Your task to perform on an android device: Search for jbl charge 4 on ebay.com, select the first entry, add it to the cart, then select checkout. Image 0: 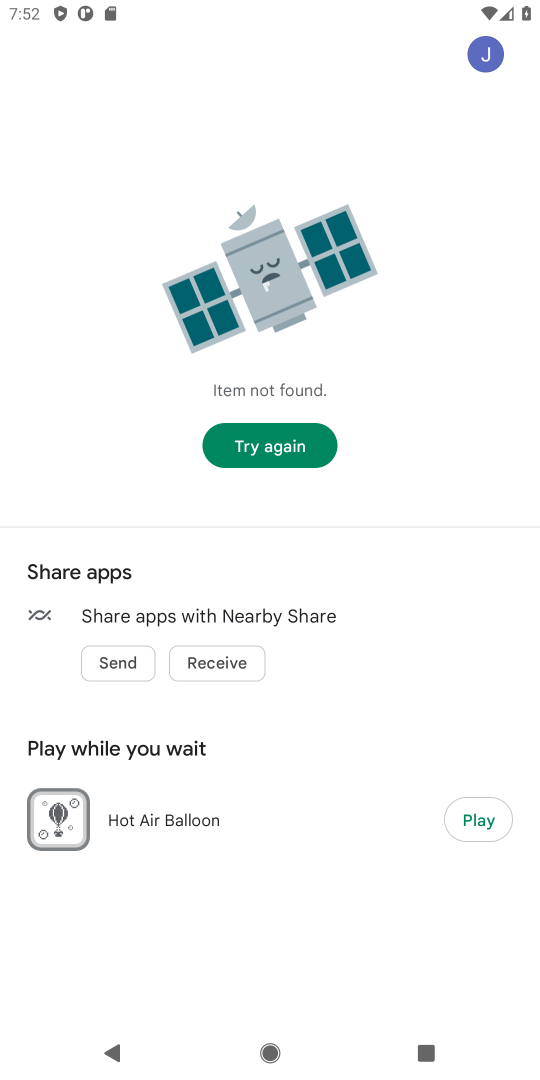
Step 0: press home button
Your task to perform on an android device: Search for jbl charge 4 on ebay.com, select the first entry, add it to the cart, then select checkout. Image 1: 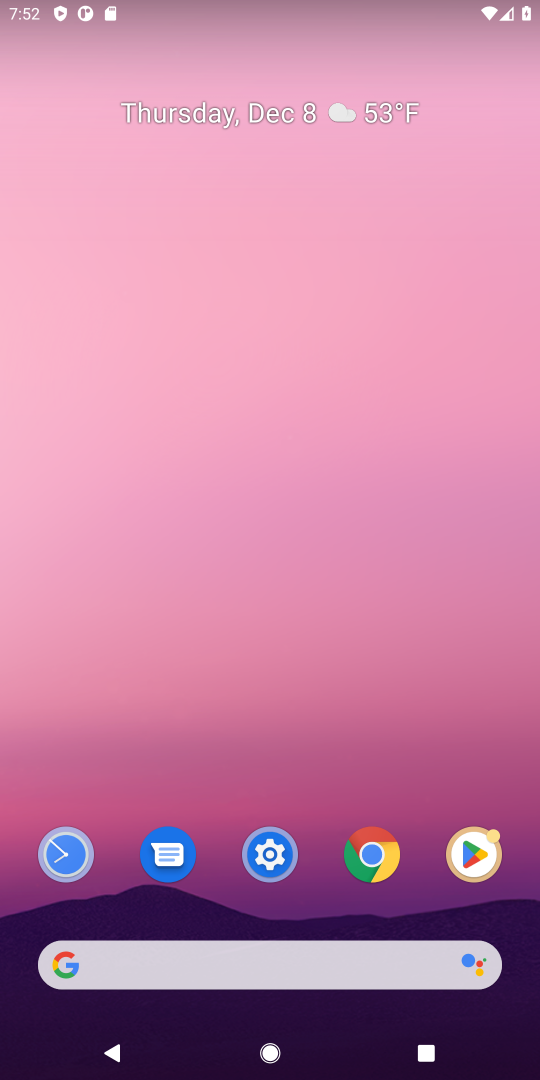
Step 1: click (100, 963)
Your task to perform on an android device: Search for jbl charge 4 on ebay.com, select the first entry, add it to the cart, then select checkout. Image 2: 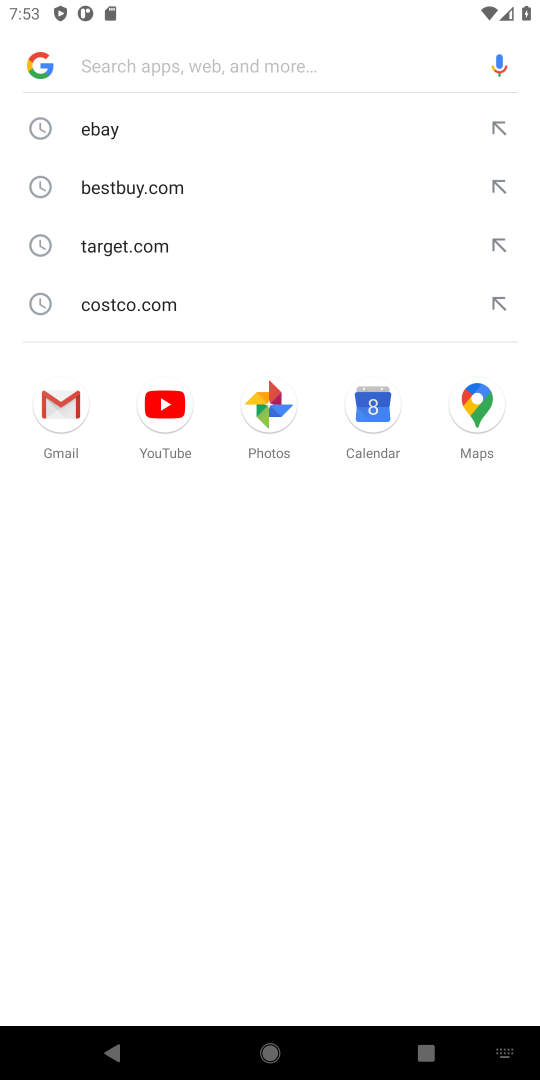
Step 2: type "ebay.com"
Your task to perform on an android device: Search for jbl charge 4 on ebay.com, select the first entry, add it to the cart, then select checkout. Image 3: 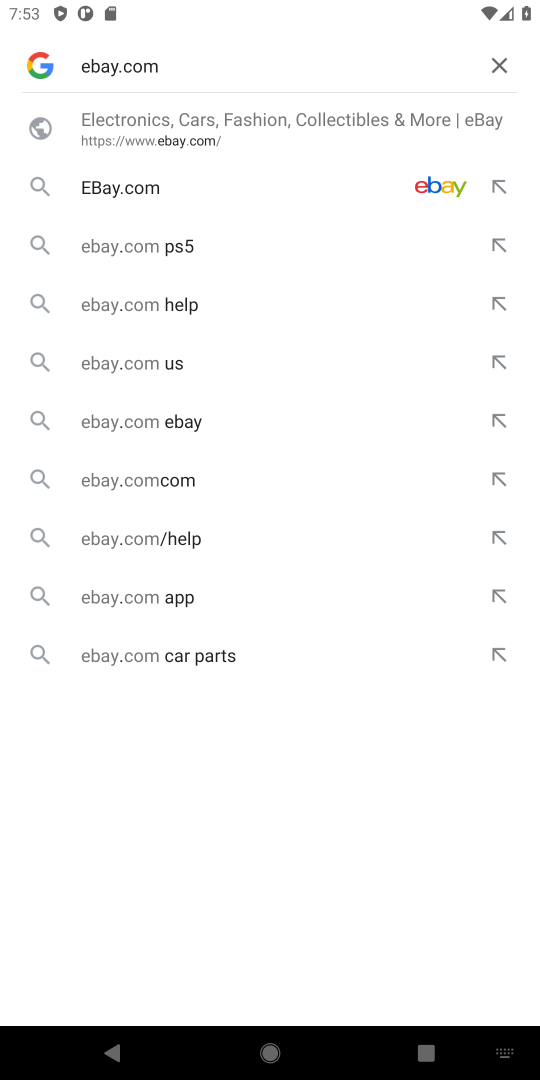
Step 3: press enter
Your task to perform on an android device: Search for jbl charge 4 on ebay.com, select the first entry, add it to the cart, then select checkout. Image 4: 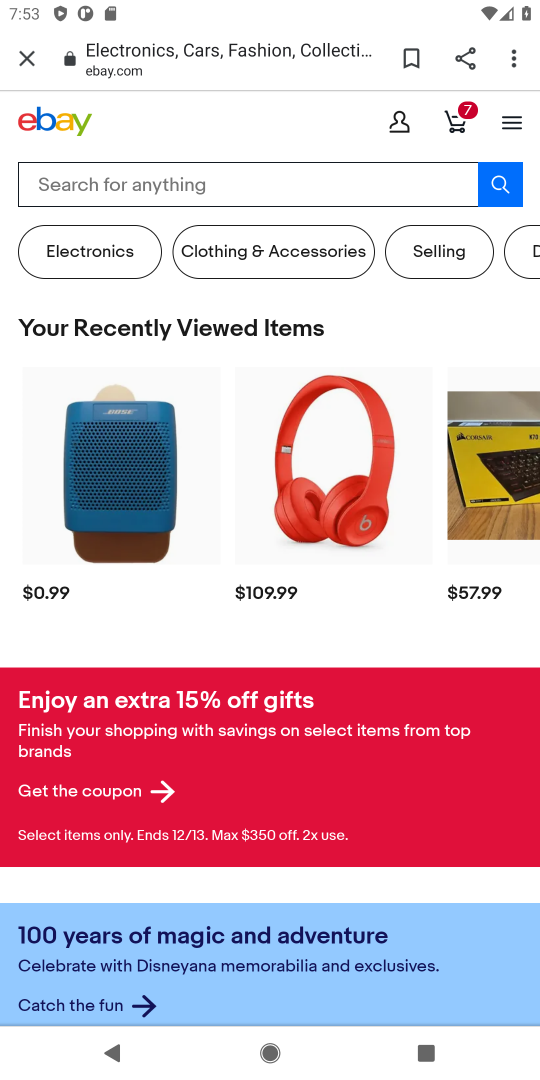
Step 4: click (130, 182)
Your task to perform on an android device: Search for jbl charge 4 on ebay.com, select the first entry, add it to the cart, then select checkout. Image 5: 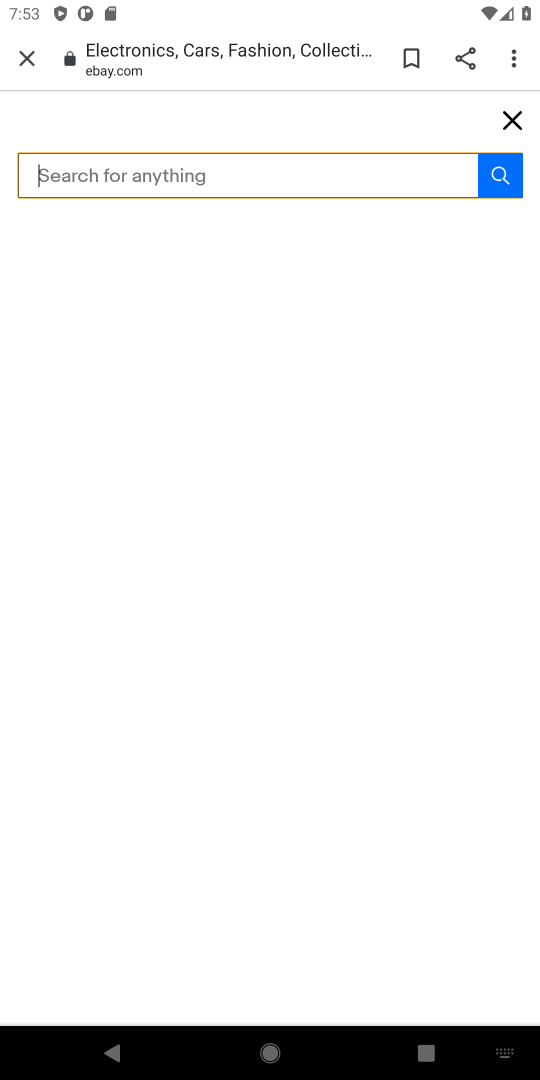
Step 5: type "jbl charge 4"
Your task to perform on an android device: Search for jbl charge 4 on ebay.com, select the first entry, add it to the cart, then select checkout. Image 6: 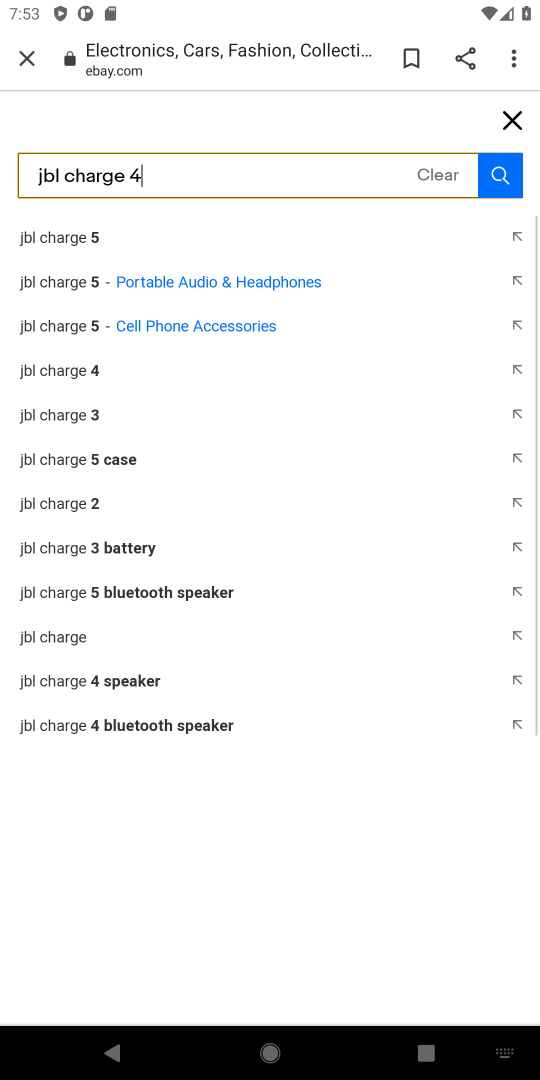
Step 6: press enter
Your task to perform on an android device: Search for jbl charge 4 on ebay.com, select the first entry, add it to the cart, then select checkout. Image 7: 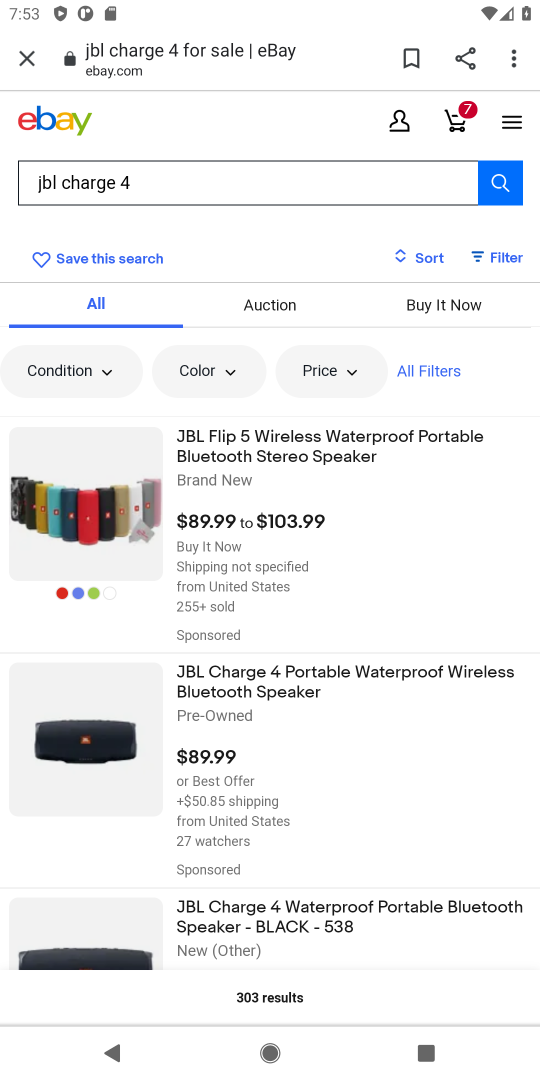
Step 7: click (275, 681)
Your task to perform on an android device: Search for jbl charge 4 on ebay.com, select the first entry, add it to the cart, then select checkout. Image 8: 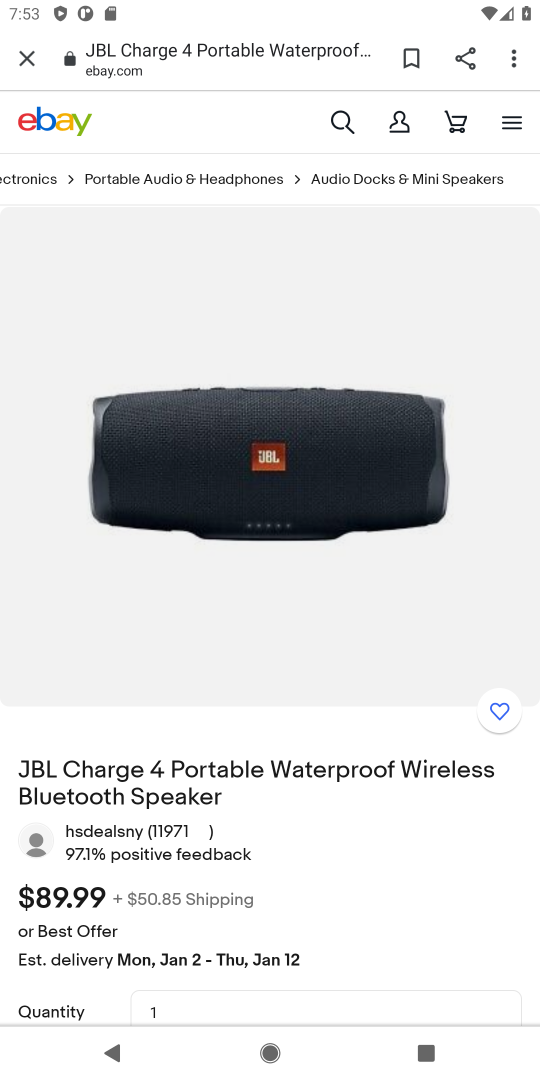
Step 8: drag from (357, 882) to (363, 388)
Your task to perform on an android device: Search for jbl charge 4 on ebay.com, select the first entry, add it to the cart, then select checkout. Image 9: 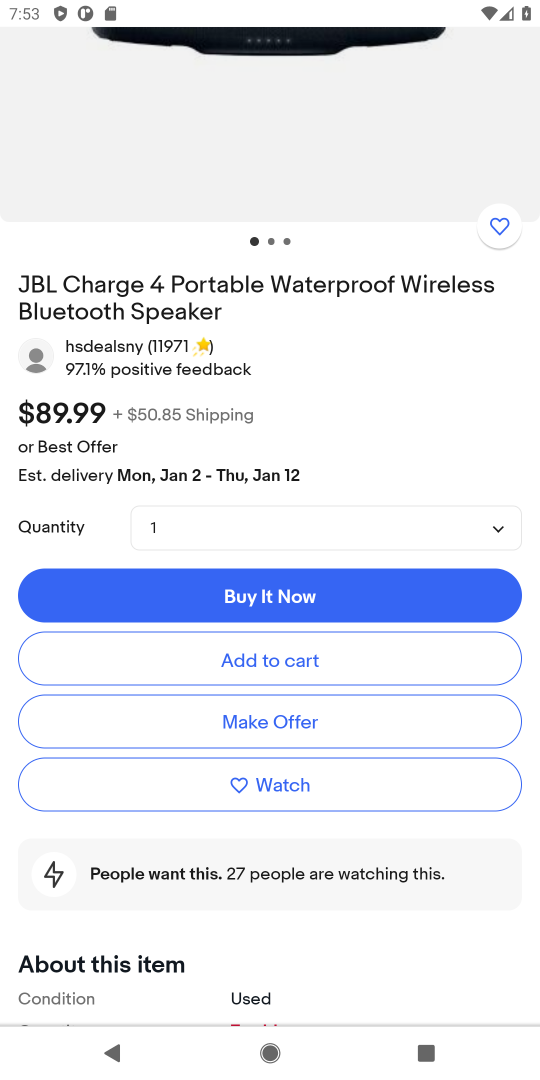
Step 9: click (237, 658)
Your task to perform on an android device: Search for jbl charge 4 on ebay.com, select the first entry, add it to the cart, then select checkout. Image 10: 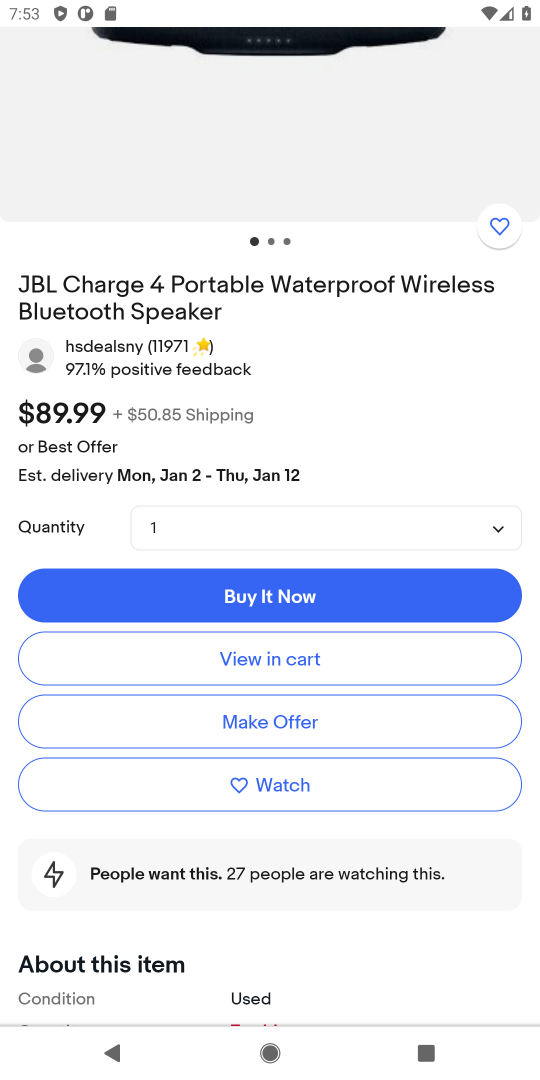
Step 10: click (287, 658)
Your task to perform on an android device: Search for jbl charge 4 on ebay.com, select the first entry, add it to the cart, then select checkout. Image 11: 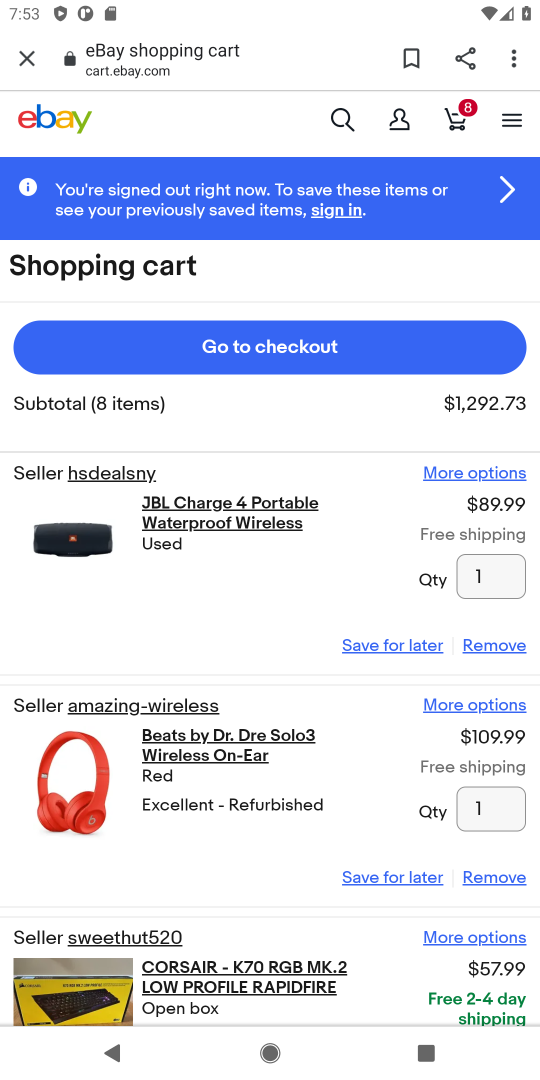
Step 11: click (253, 337)
Your task to perform on an android device: Search for jbl charge 4 on ebay.com, select the first entry, add it to the cart, then select checkout. Image 12: 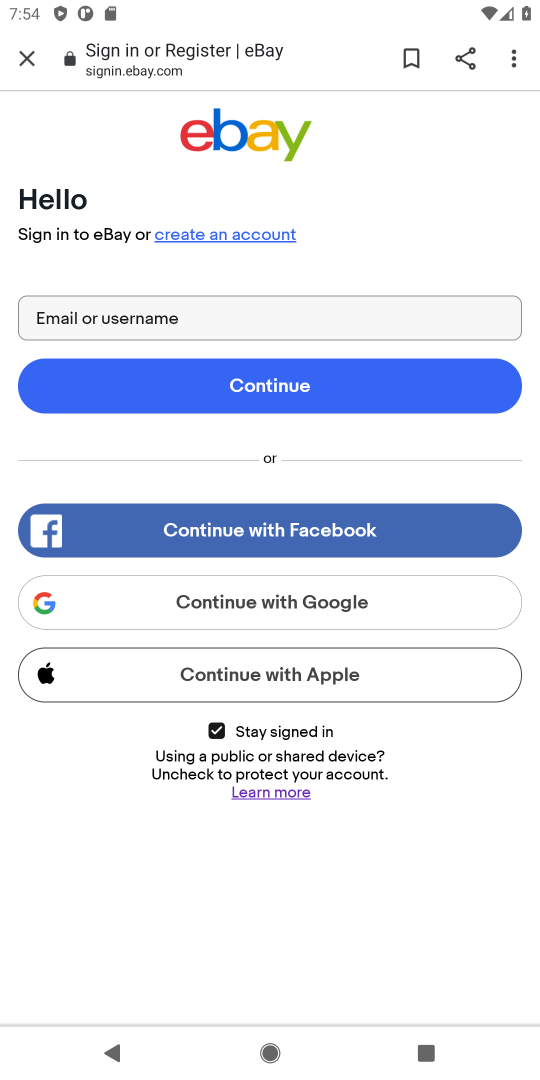
Step 12: task complete